Your task to perform on an android device: Look up the best rated coffee maker on Lowe's. Image 0: 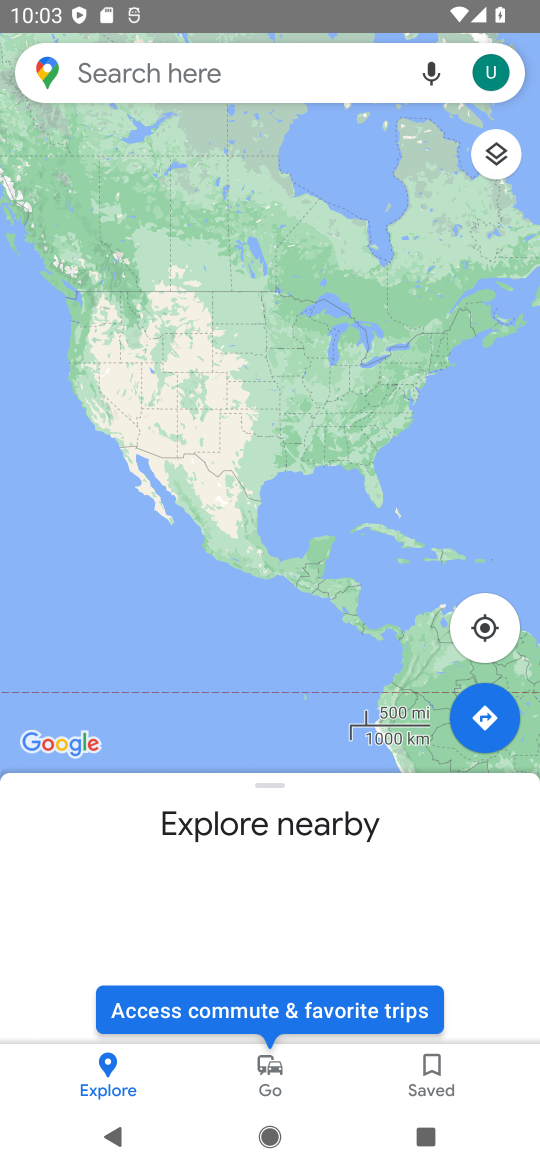
Step 0: press home button
Your task to perform on an android device: Look up the best rated coffee maker on Lowe's. Image 1: 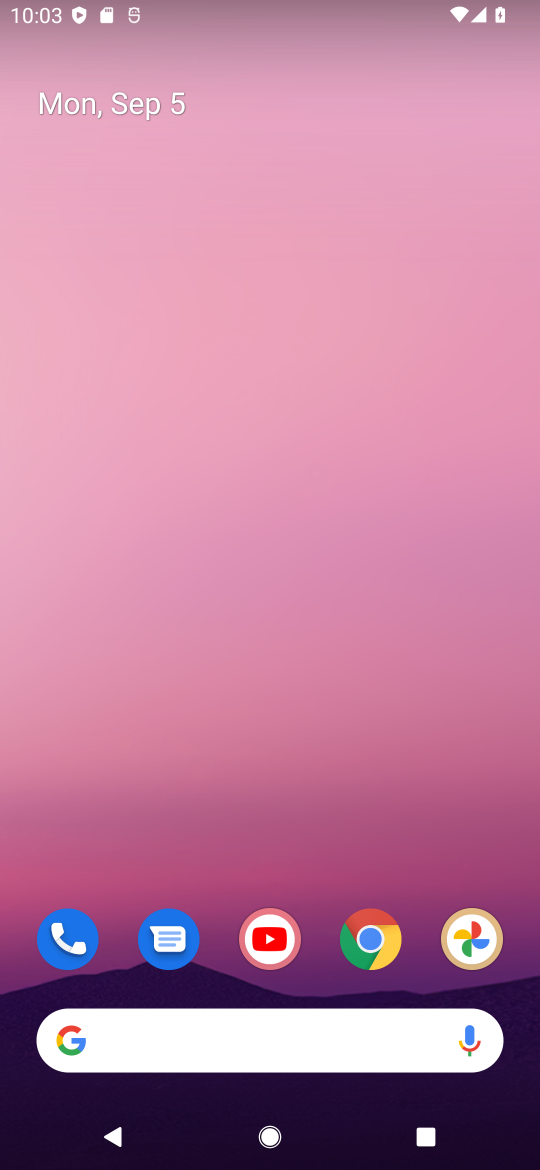
Step 1: drag from (305, 872) to (276, 20)
Your task to perform on an android device: Look up the best rated coffee maker on Lowe's. Image 2: 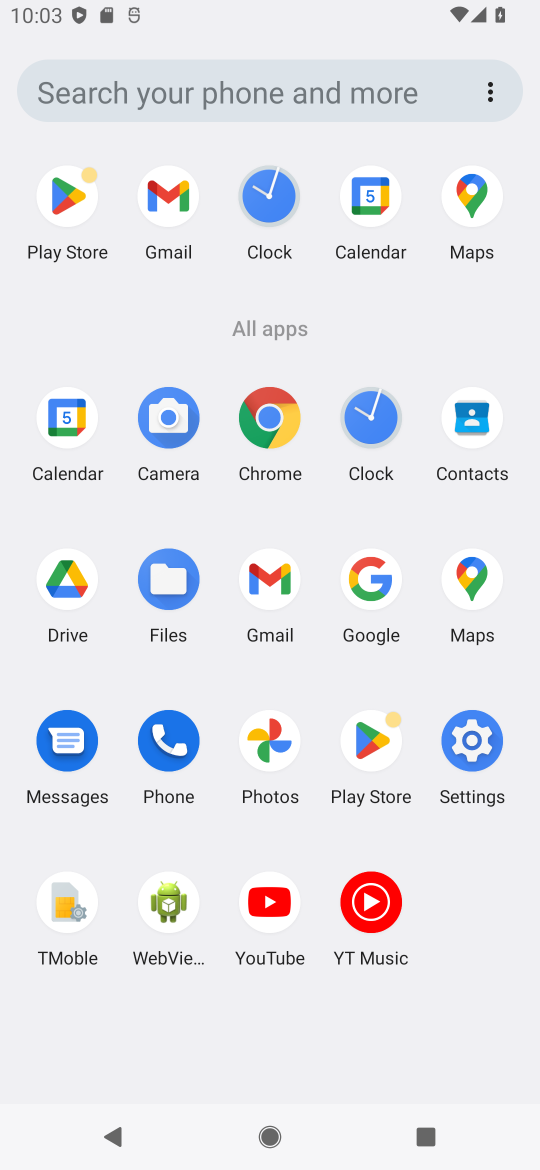
Step 2: click (280, 422)
Your task to perform on an android device: Look up the best rated coffee maker on Lowe's. Image 3: 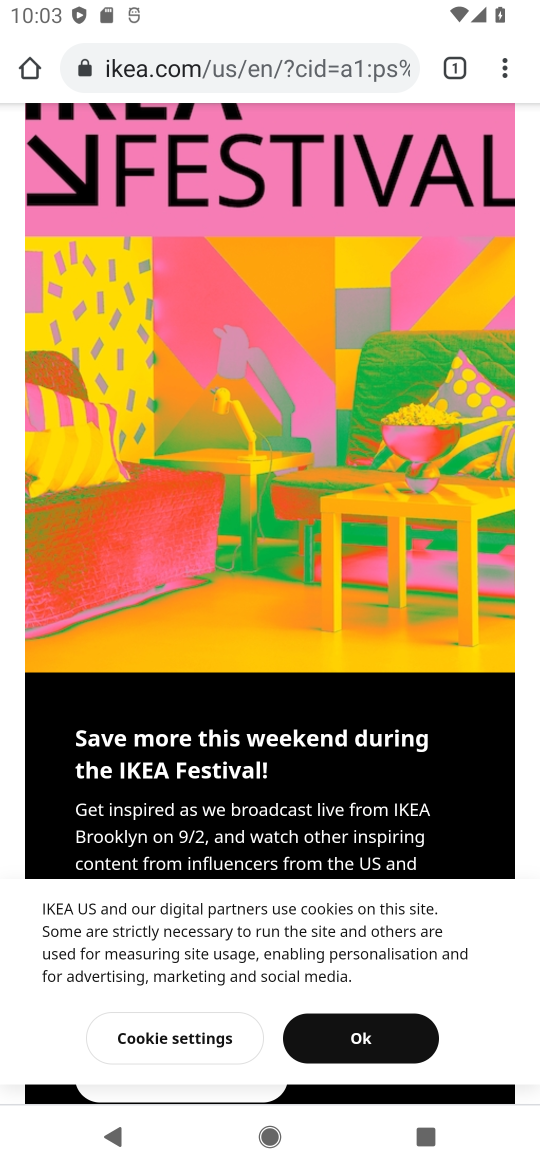
Step 3: click (234, 67)
Your task to perform on an android device: Look up the best rated coffee maker on Lowe's. Image 4: 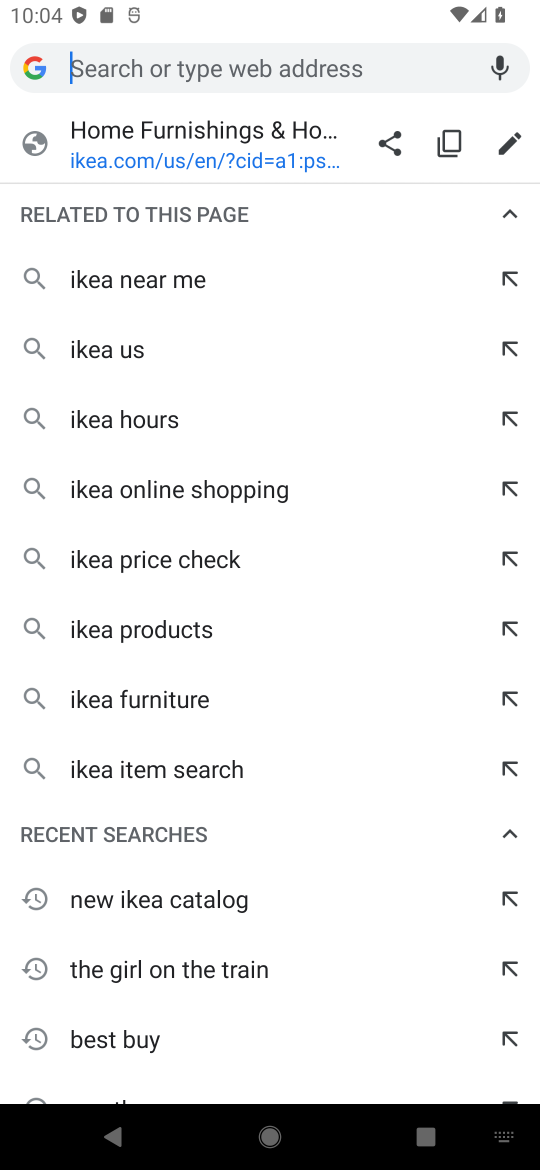
Step 4: type "best rated coffee maker on Lowe's"
Your task to perform on an android device: Look up the best rated coffee maker on Lowe's. Image 5: 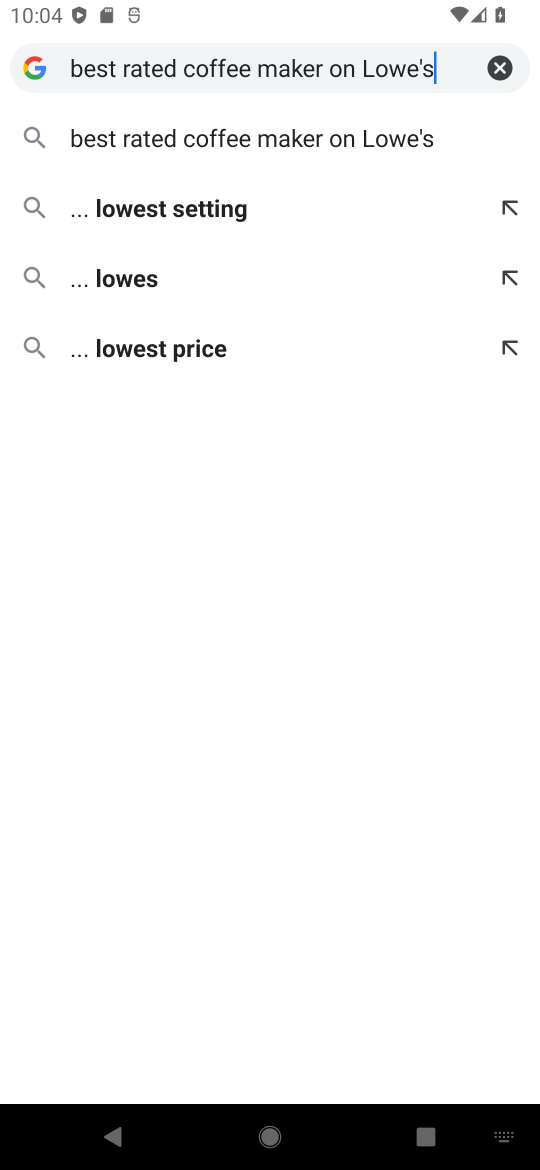
Step 5: click (187, 142)
Your task to perform on an android device: Look up the best rated coffee maker on Lowe's. Image 6: 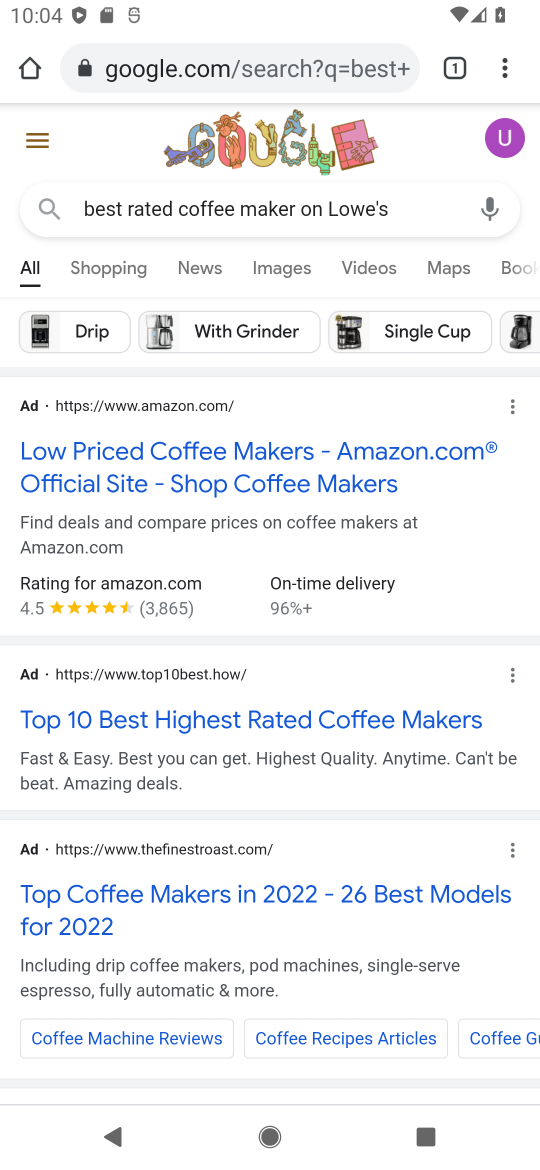
Step 6: click (174, 463)
Your task to perform on an android device: Look up the best rated coffee maker on Lowe's. Image 7: 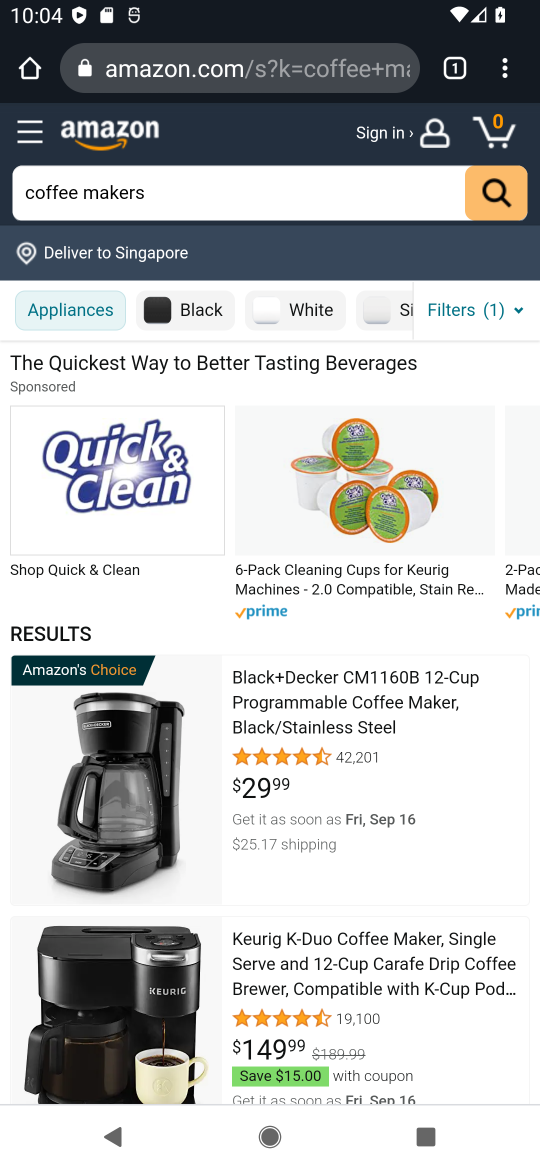
Step 7: task complete